Your task to perform on an android device: toggle wifi Image 0: 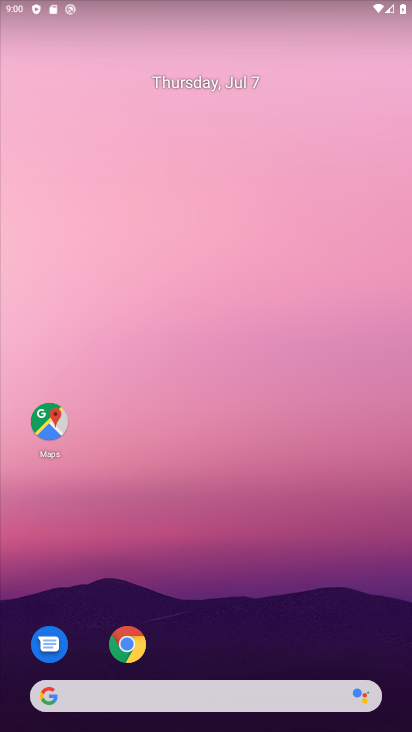
Step 0: drag from (268, 593) to (267, 138)
Your task to perform on an android device: toggle wifi Image 1: 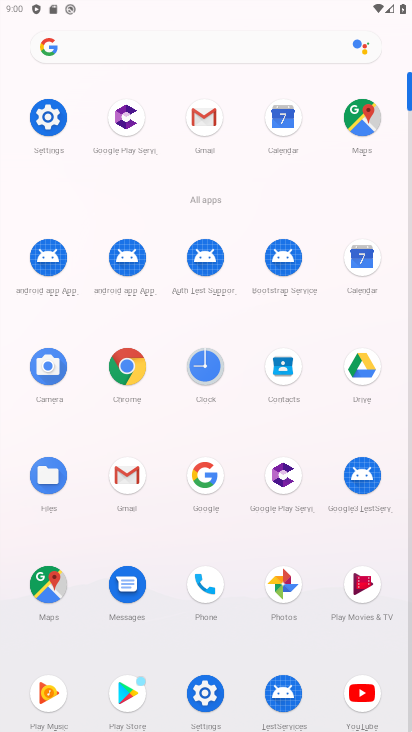
Step 1: click (51, 120)
Your task to perform on an android device: toggle wifi Image 2: 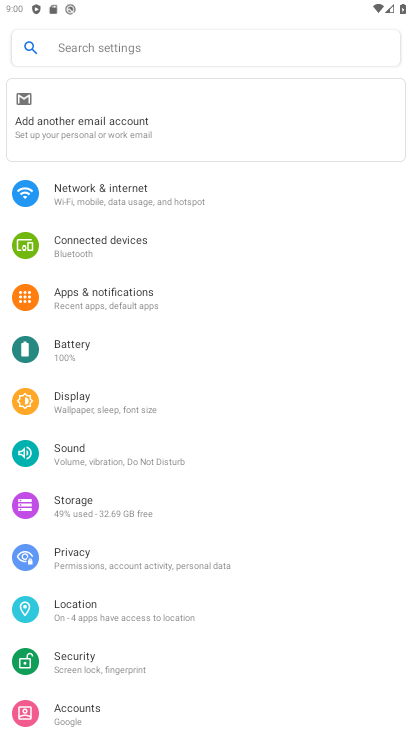
Step 2: click (163, 202)
Your task to perform on an android device: toggle wifi Image 3: 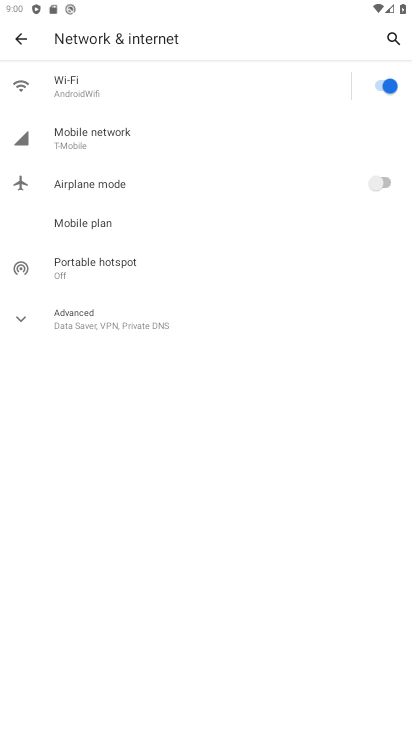
Step 3: click (379, 77)
Your task to perform on an android device: toggle wifi Image 4: 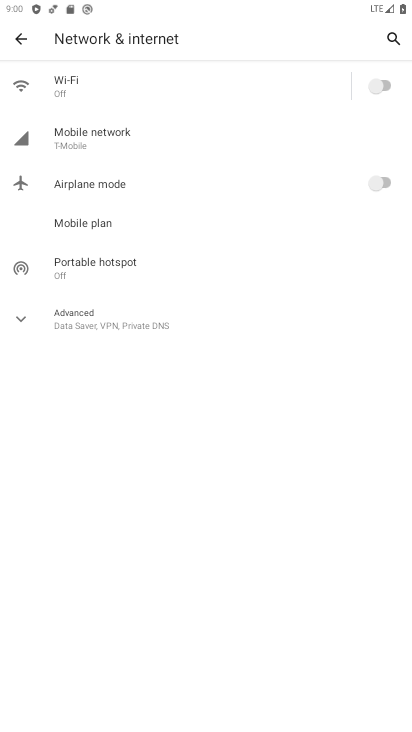
Step 4: task complete